Your task to perform on an android device: turn off wifi Image 0: 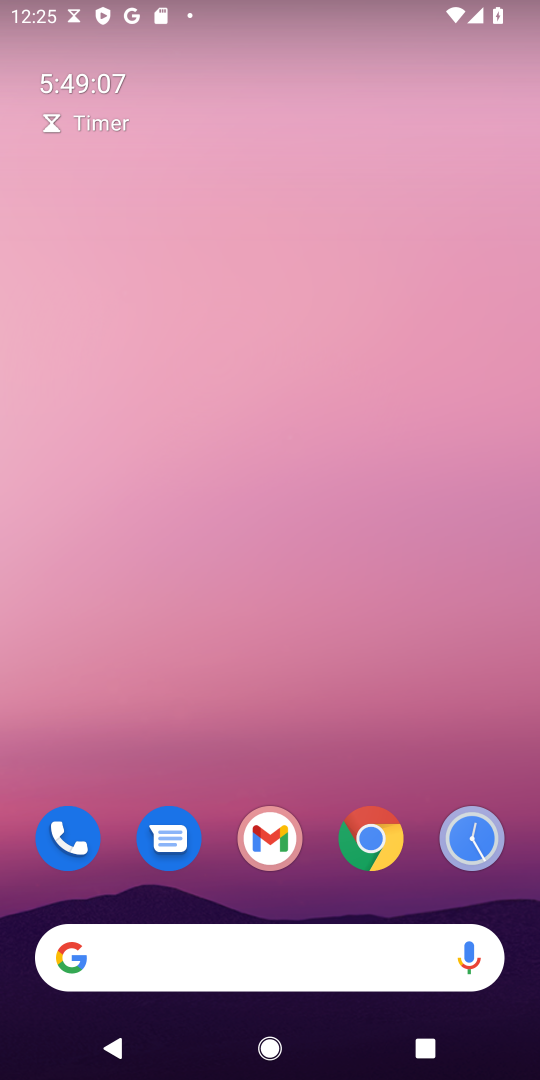
Step 0: drag from (220, 728) to (327, 5)
Your task to perform on an android device: turn off wifi Image 1: 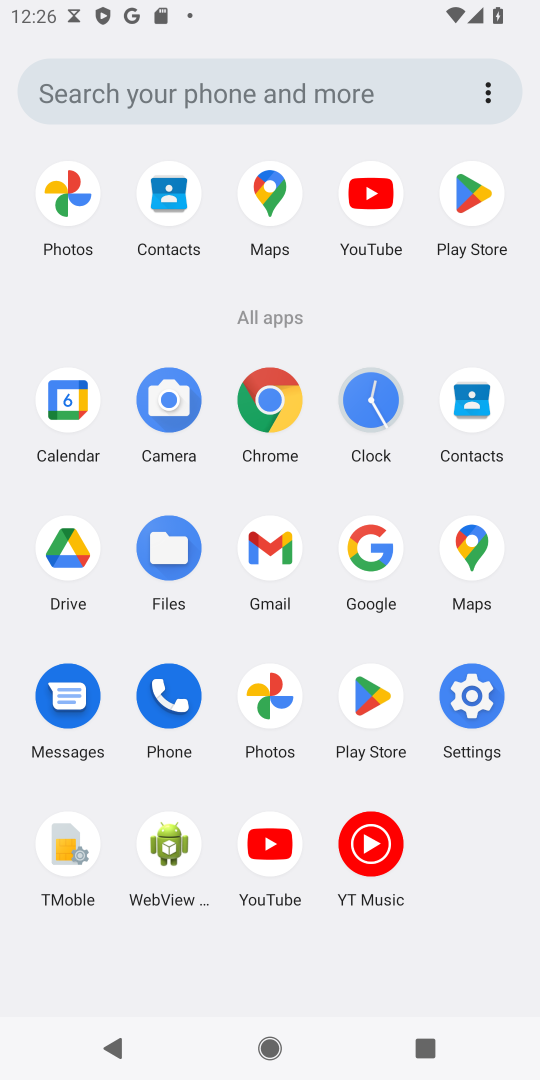
Step 1: click (481, 698)
Your task to perform on an android device: turn off wifi Image 2: 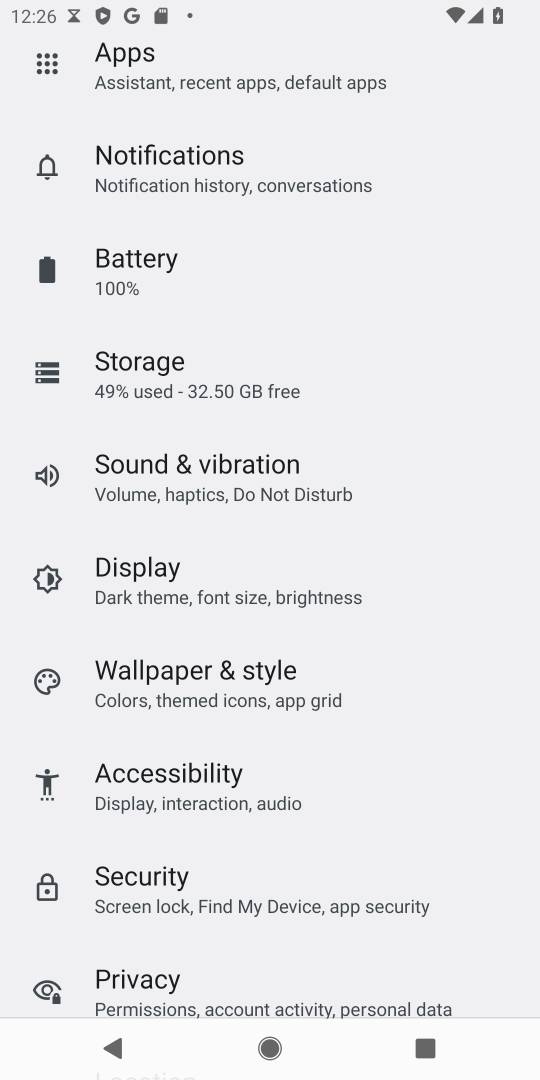
Step 2: drag from (225, 154) to (275, 633)
Your task to perform on an android device: turn off wifi Image 3: 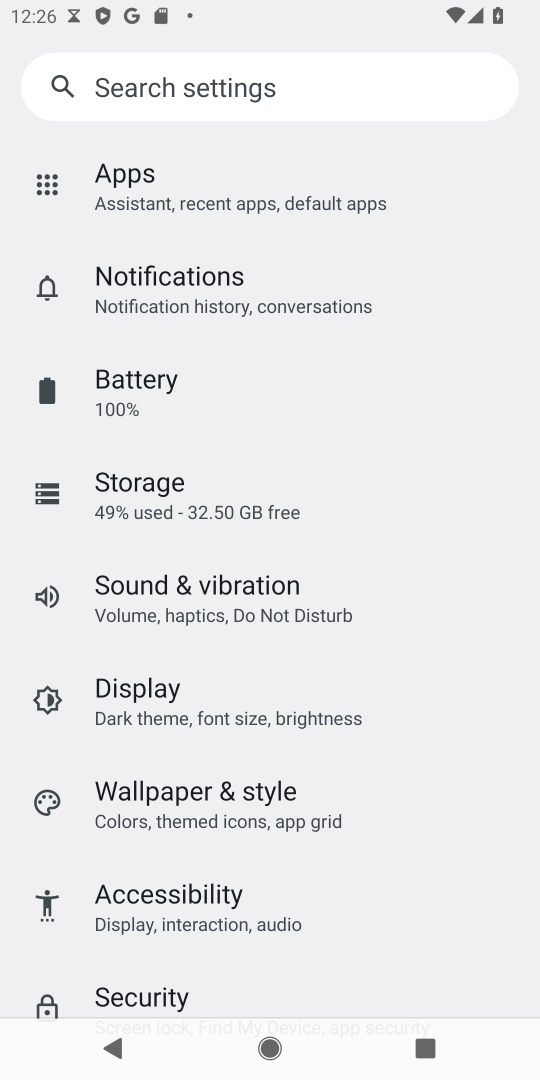
Step 3: drag from (255, 153) to (332, 845)
Your task to perform on an android device: turn off wifi Image 4: 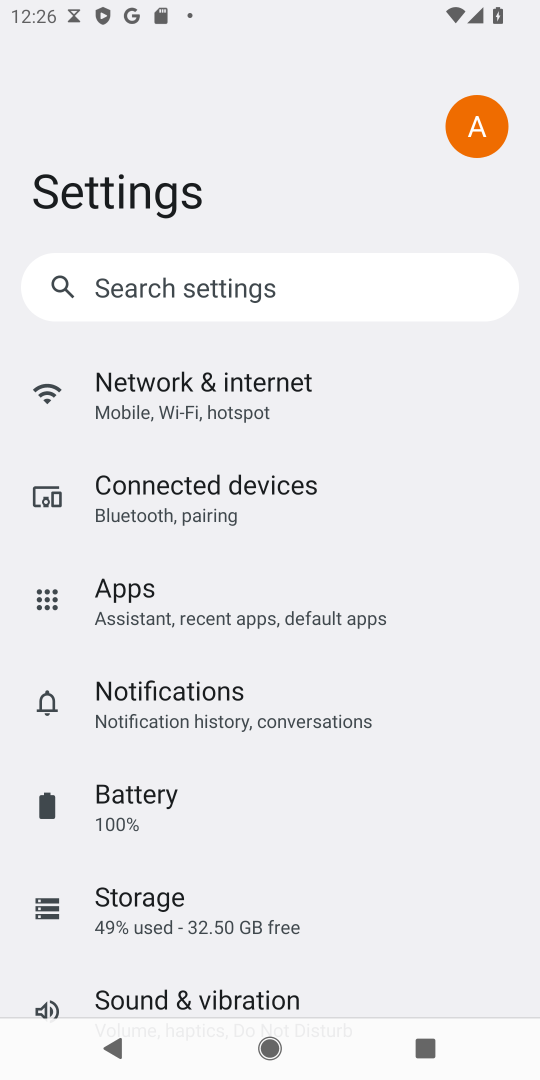
Step 4: click (230, 390)
Your task to perform on an android device: turn off wifi Image 5: 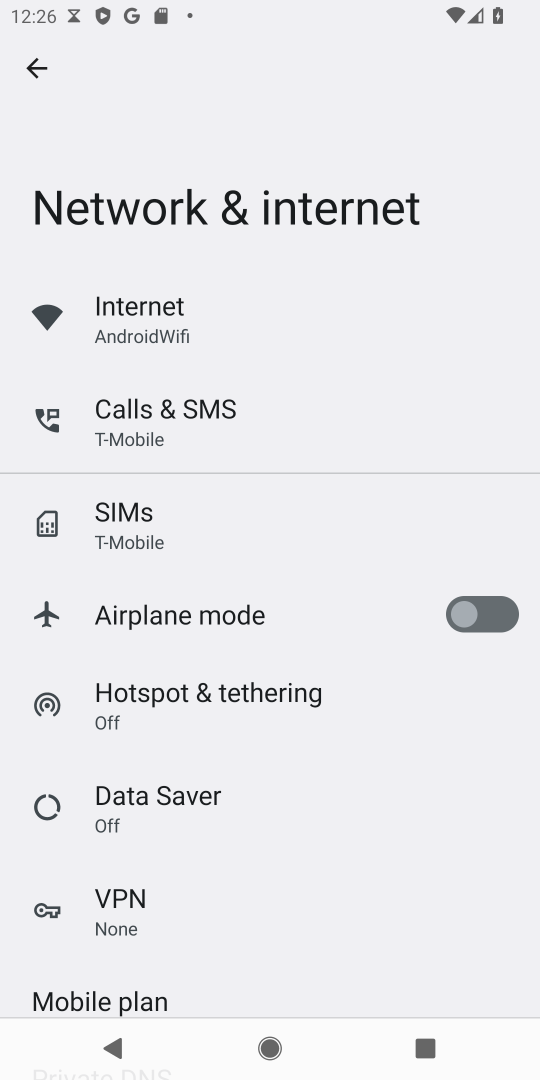
Step 5: click (192, 318)
Your task to perform on an android device: turn off wifi Image 6: 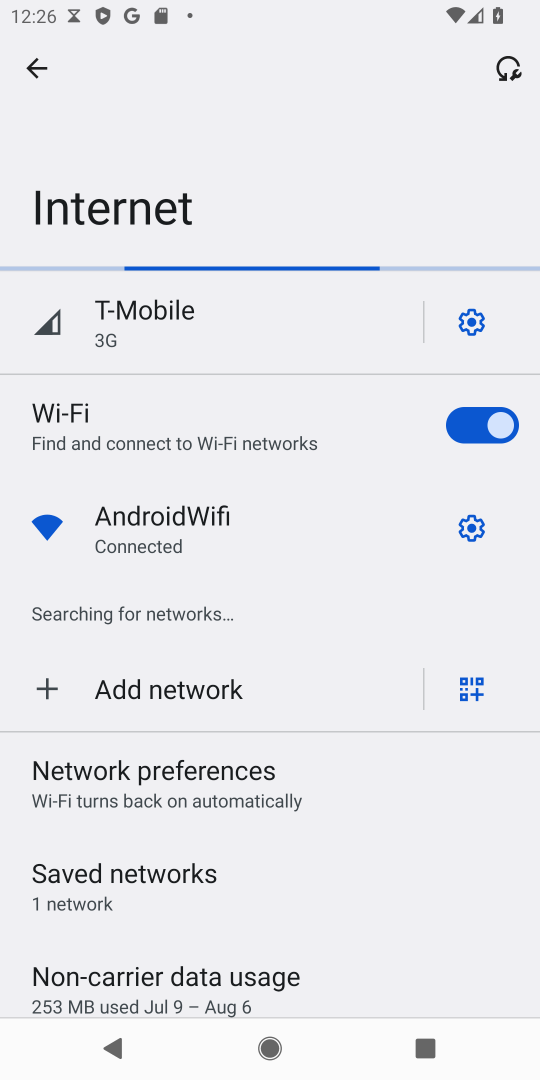
Step 6: click (490, 377)
Your task to perform on an android device: turn off wifi Image 7: 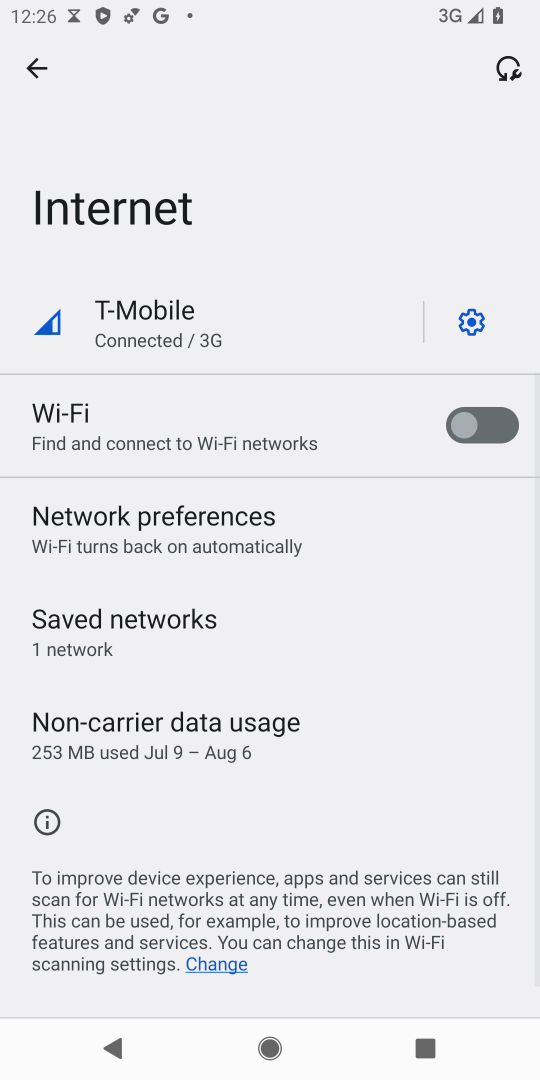
Step 7: task complete